Your task to perform on an android device: Is it going to rain this weekend? Image 0: 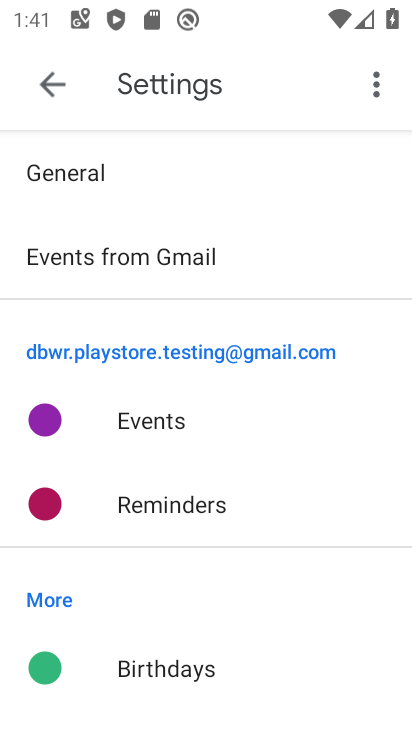
Step 0: press home button
Your task to perform on an android device: Is it going to rain this weekend? Image 1: 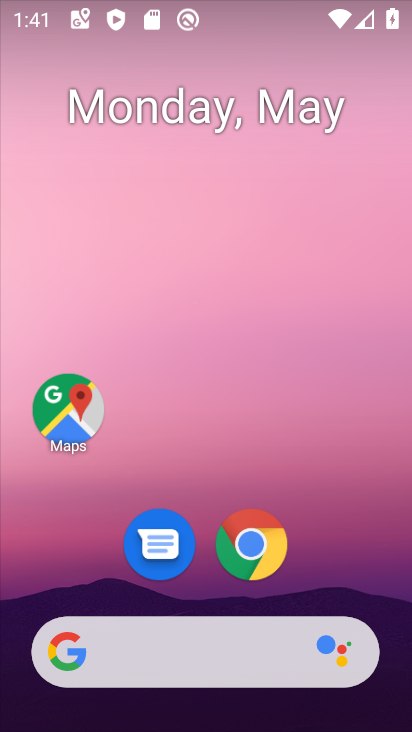
Step 1: click (187, 662)
Your task to perform on an android device: Is it going to rain this weekend? Image 2: 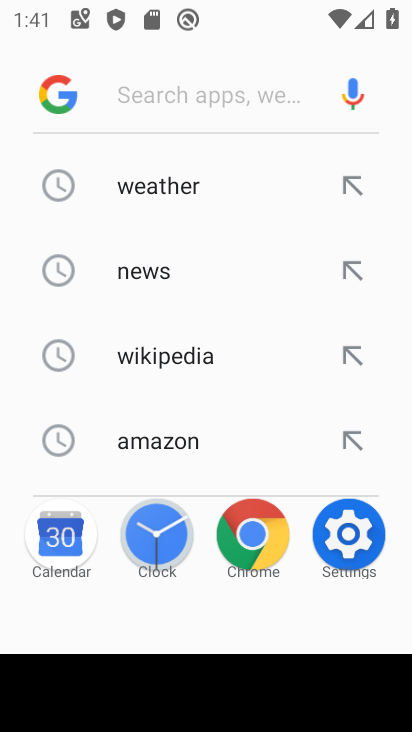
Step 2: click (183, 200)
Your task to perform on an android device: Is it going to rain this weekend? Image 3: 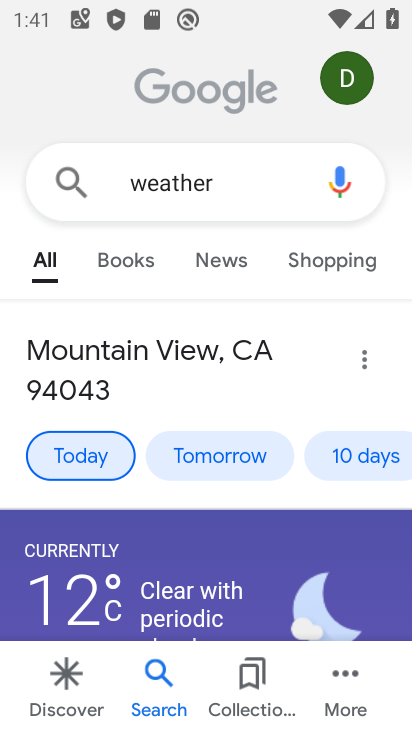
Step 3: click (389, 455)
Your task to perform on an android device: Is it going to rain this weekend? Image 4: 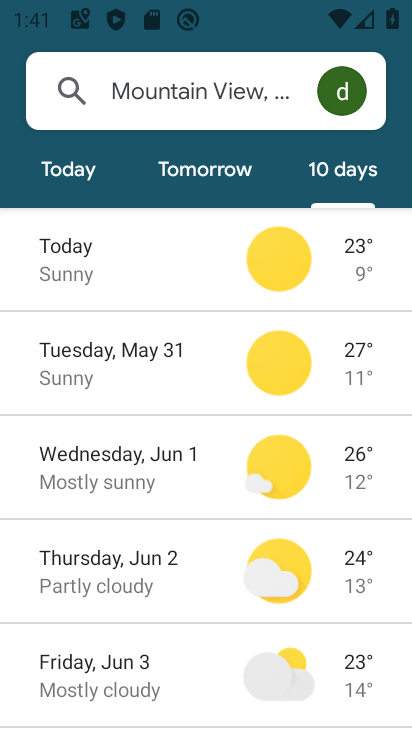
Step 4: task complete